Your task to perform on an android device: Open the phone app and click the voicemail tab. Image 0: 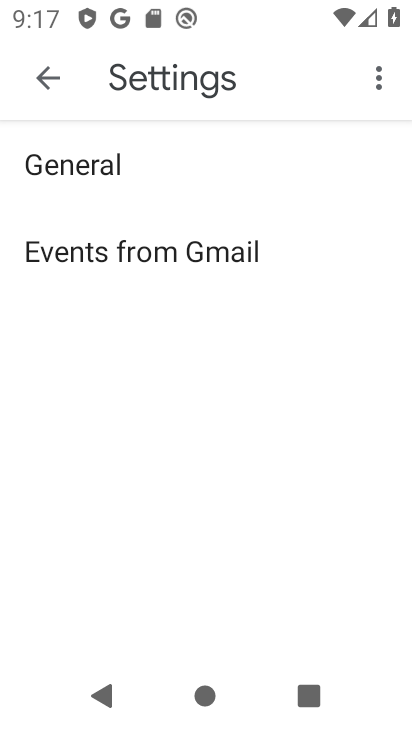
Step 0: press home button
Your task to perform on an android device: Open the phone app and click the voicemail tab. Image 1: 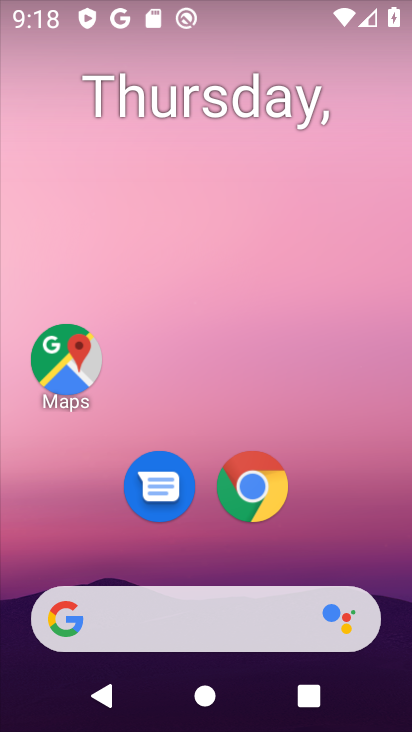
Step 1: drag from (186, 552) to (253, 0)
Your task to perform on an android device: Open the phone app and click the voicemail tab. Image 2: 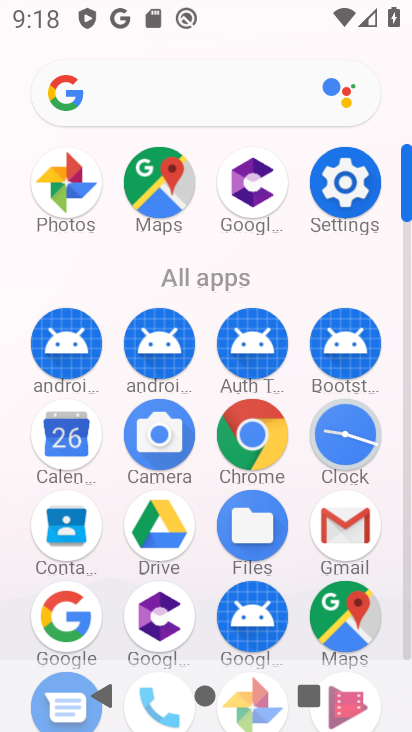
Step 2: drag from (211, 570) to (224, 238)
Your task to perform on an android device: Open the phone app and click the voicemail tab. Image 3: 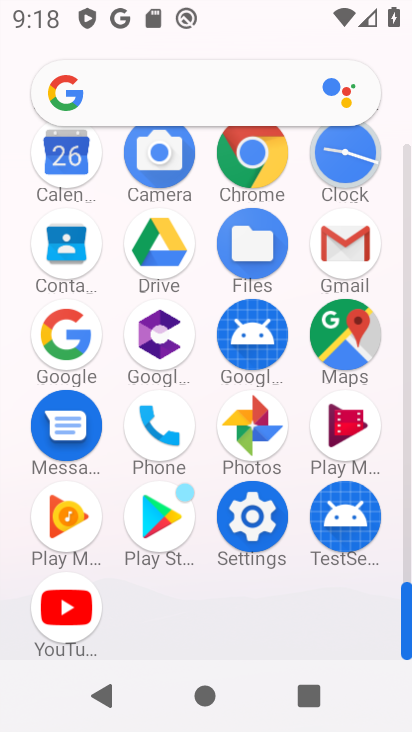
Step 3: click (156, 409)
Your task to perform on an android device: Open the phone app and click the voicemail tab. Image 4: 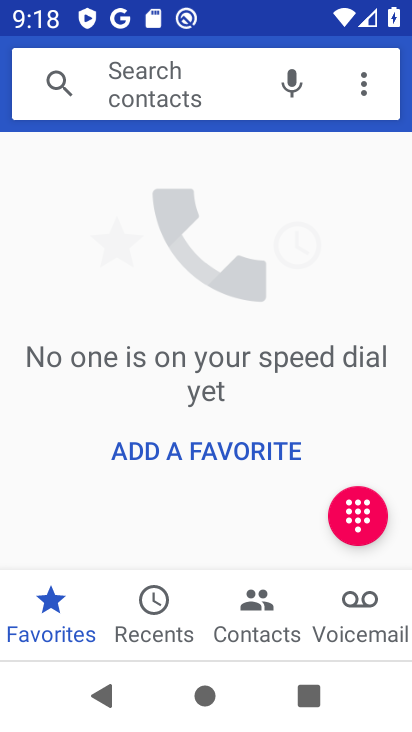
Step 4: click (340, 619)
Your task to perform on an android device: Open the phone app and click the voicemail tab. Image 5: 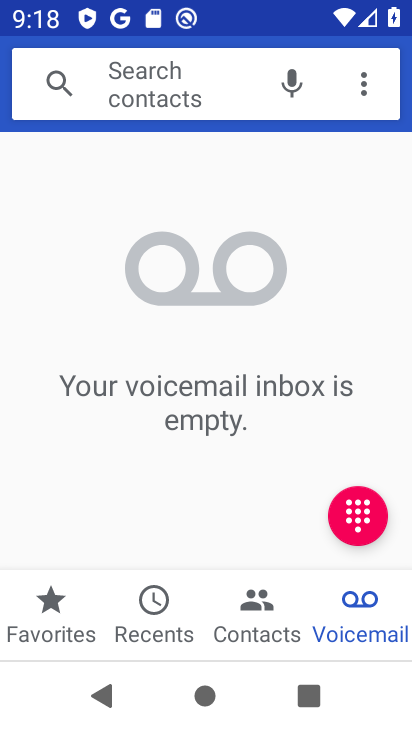
Step 5: task complete